Your task to perform on an android device: What is the news today? Image 0: 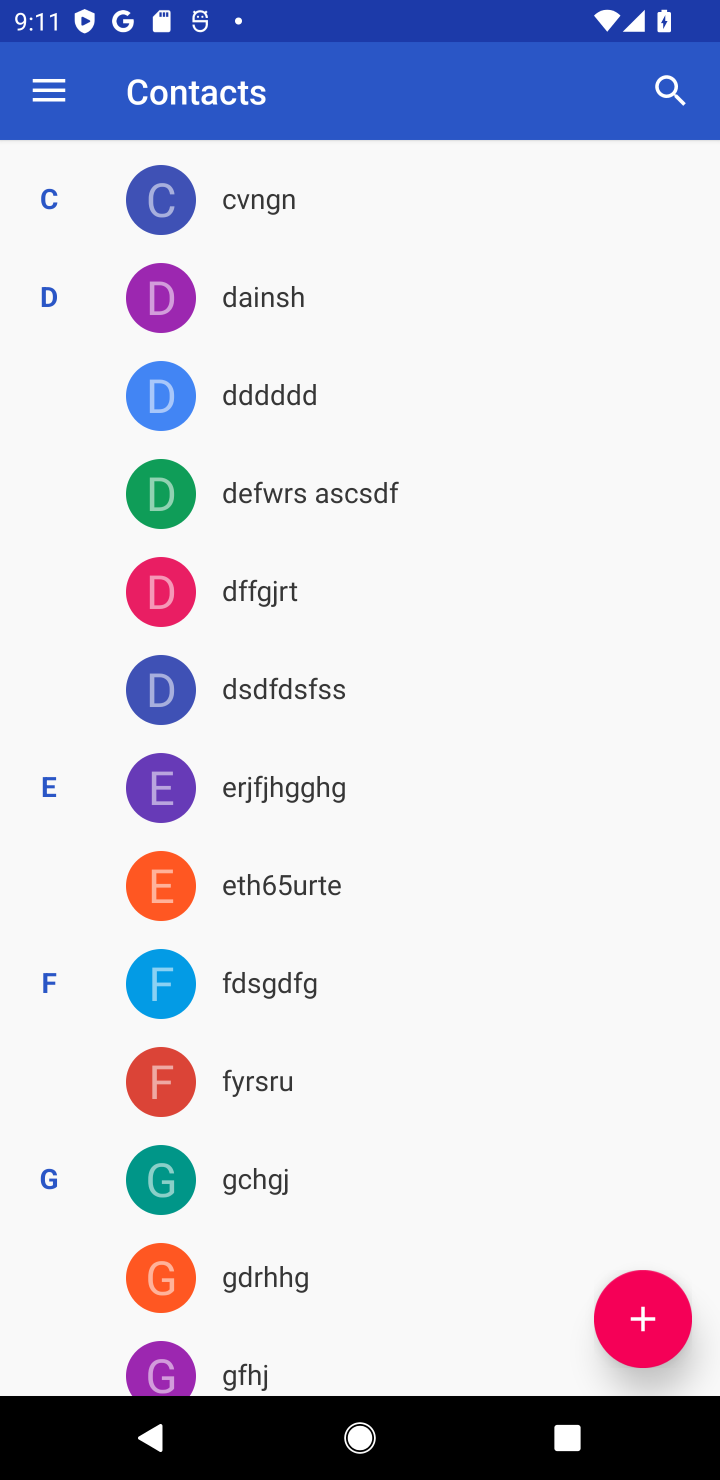
Step 0: press home button
Your task to perform on an android device: What is the news today? Image 1: 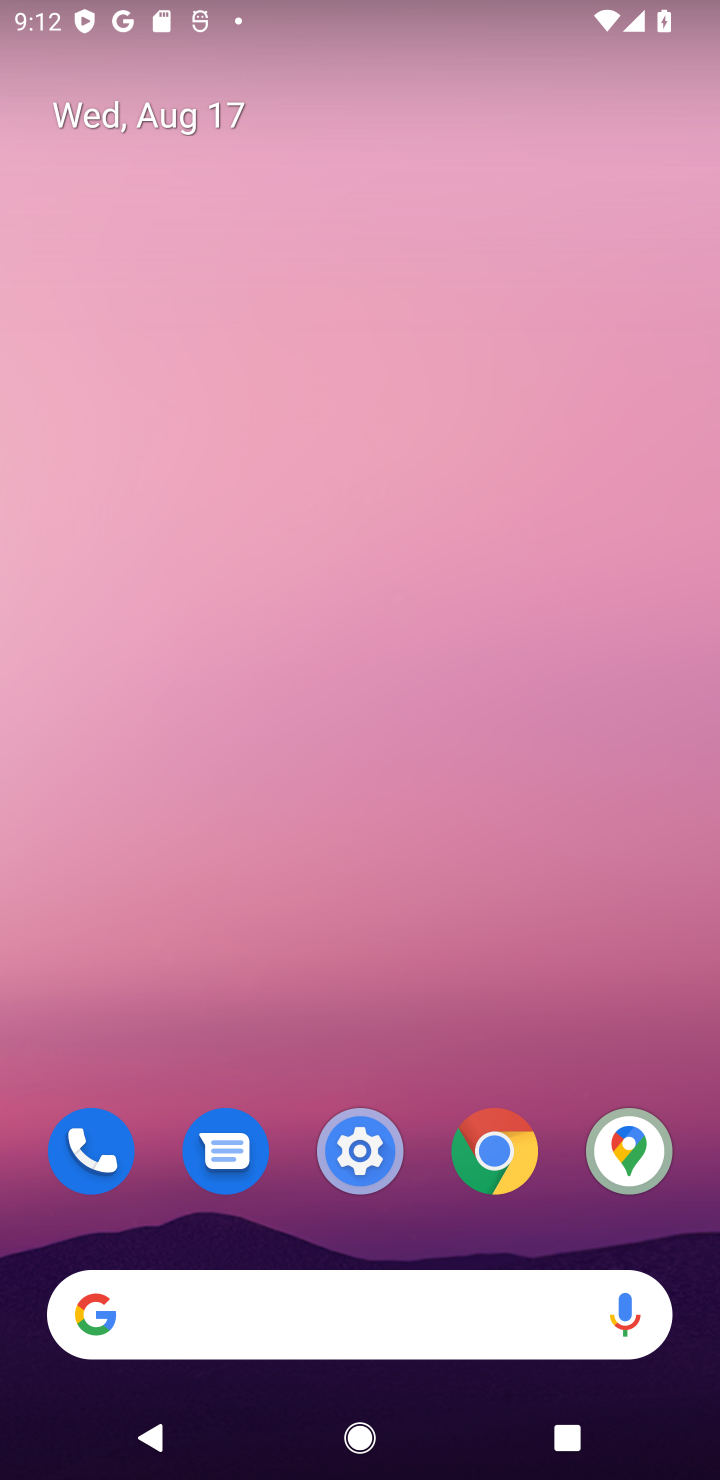
Step 1: click (316, 1310)
Your task to perform on an android device: What is the news today? Image 2: 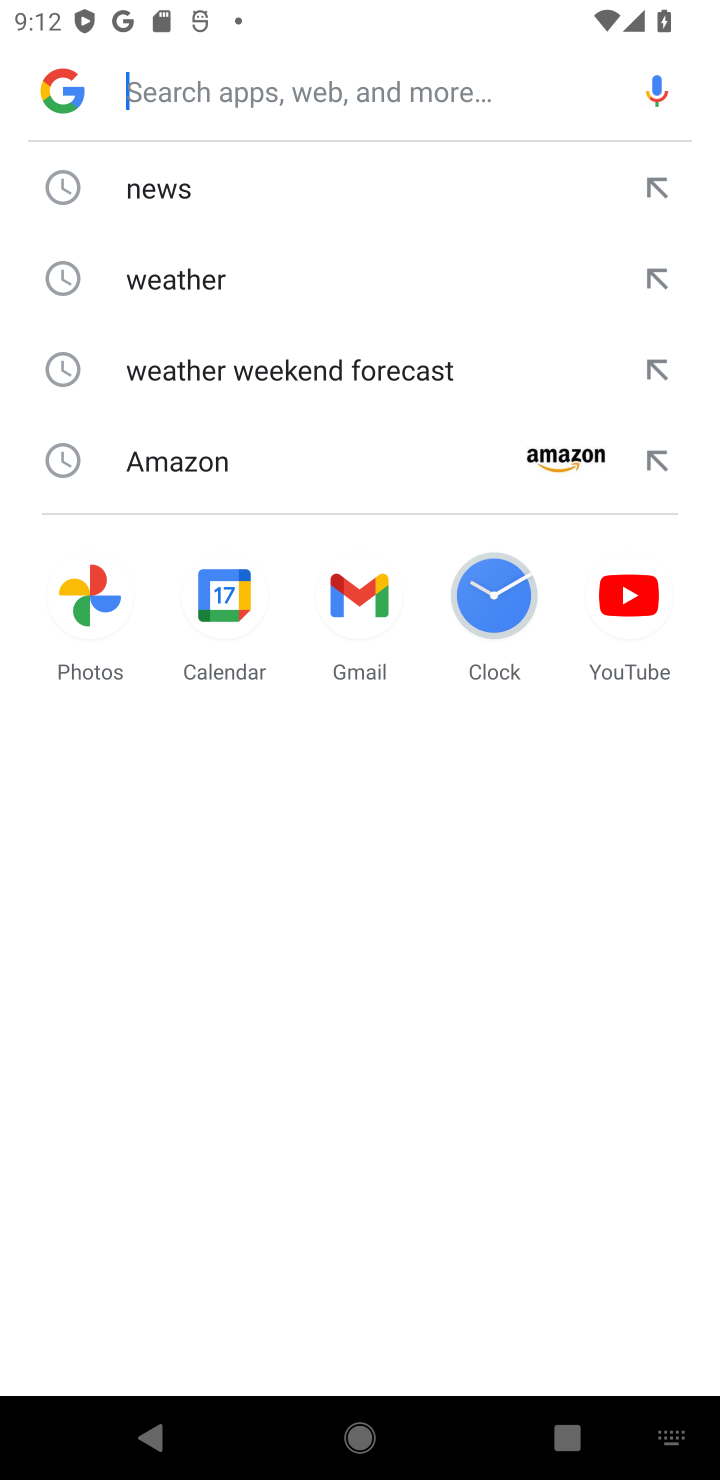
Step 2: type "news today"
Your task to perform on an android device: What is the news today? Image 3: 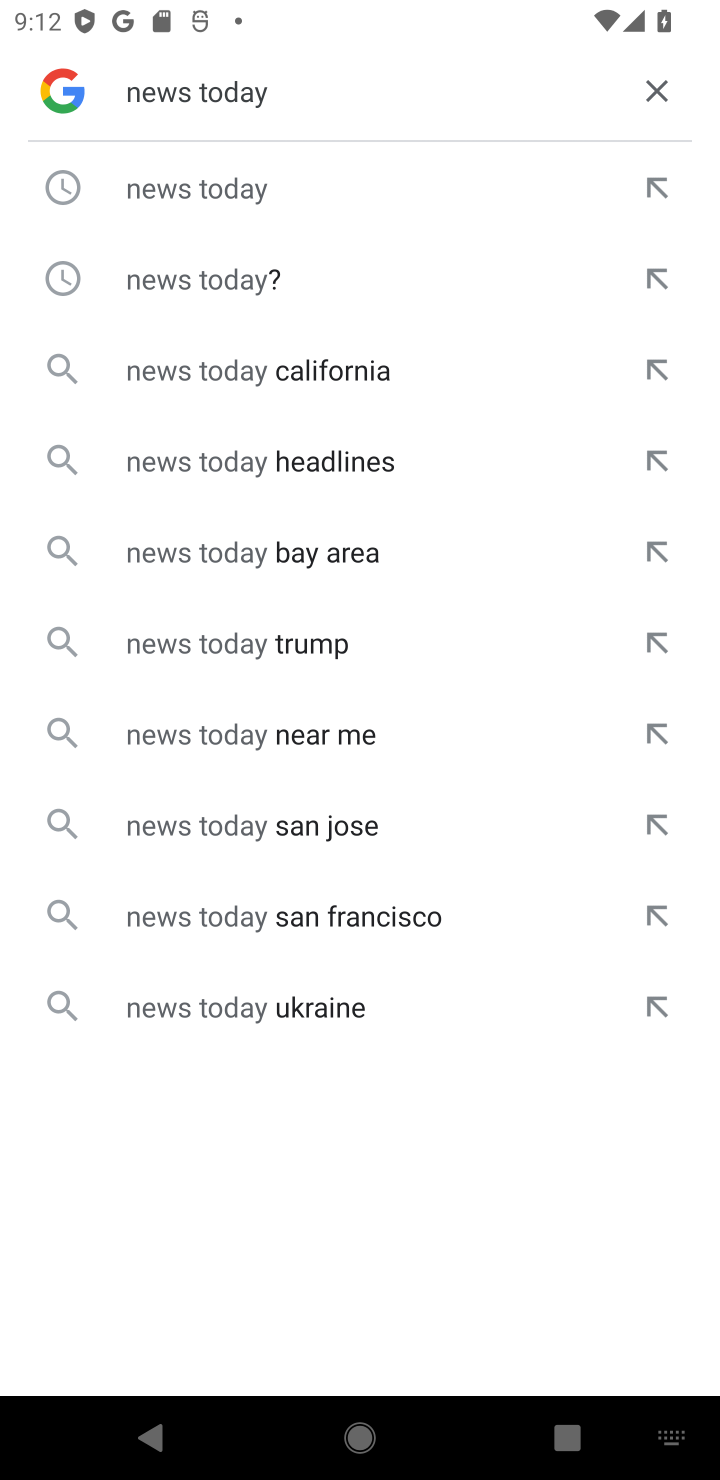
Step 3: click (209, 187)
Your task to perform on an android device: What is the news today? Image 4: 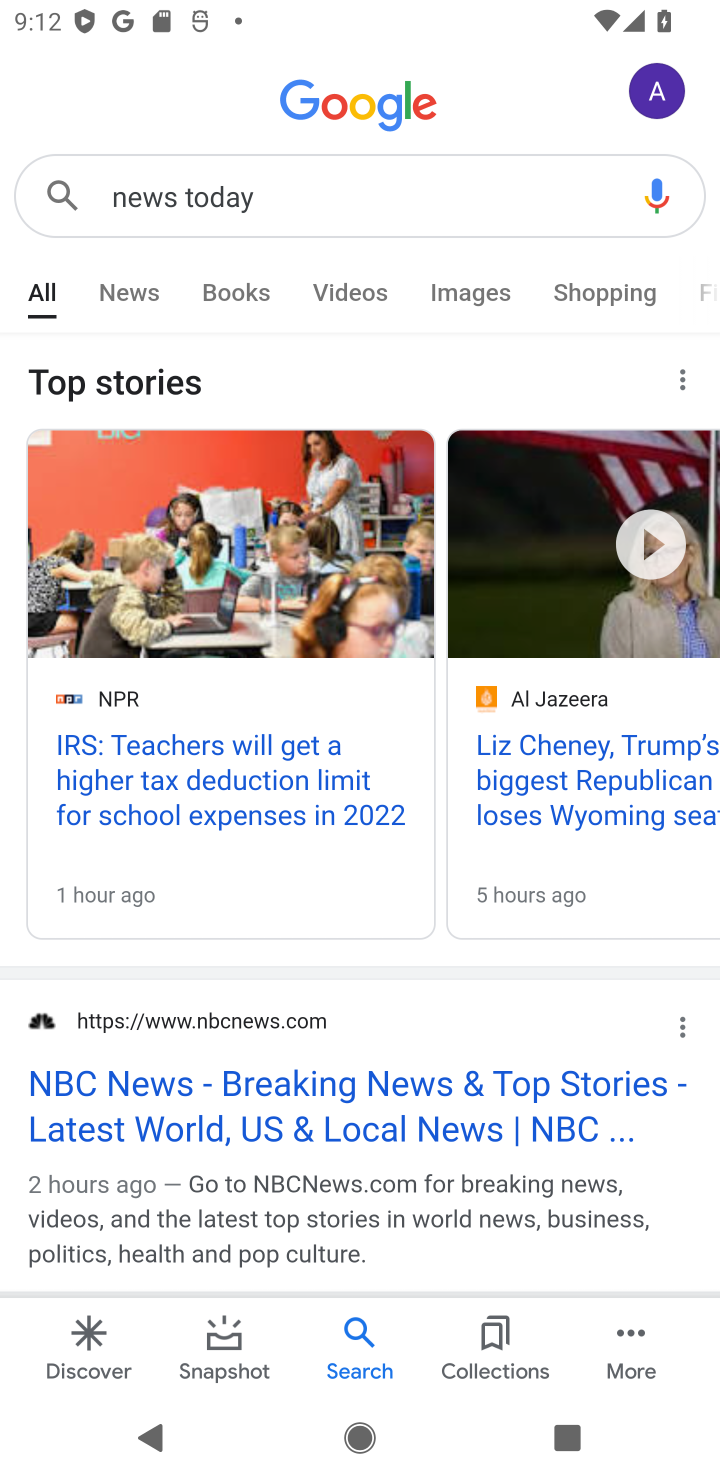
Step 4: click (124, 290)
Your task to perform on an android device: What is the news today? Image 5: 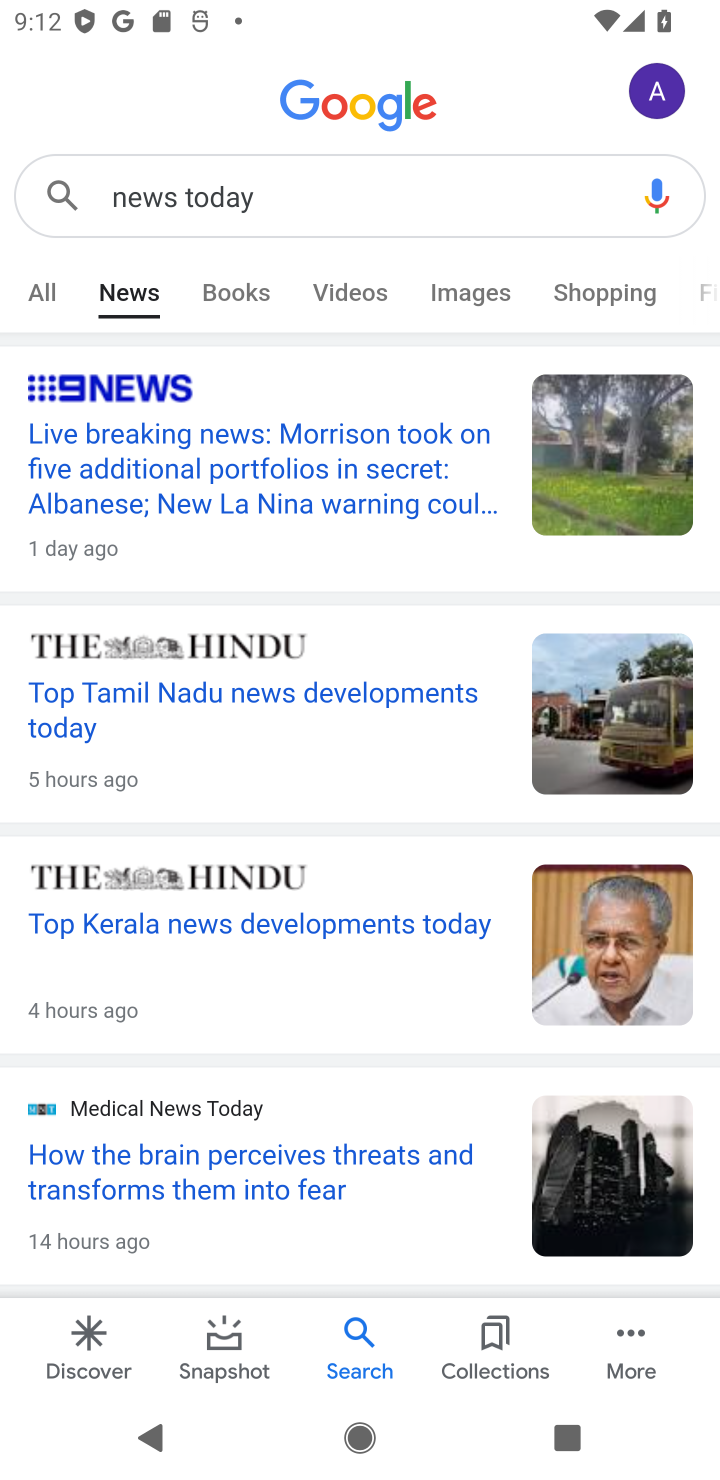
Step 5: task complete